Your task to perform on an android device: Go to CNN.com Image 0: 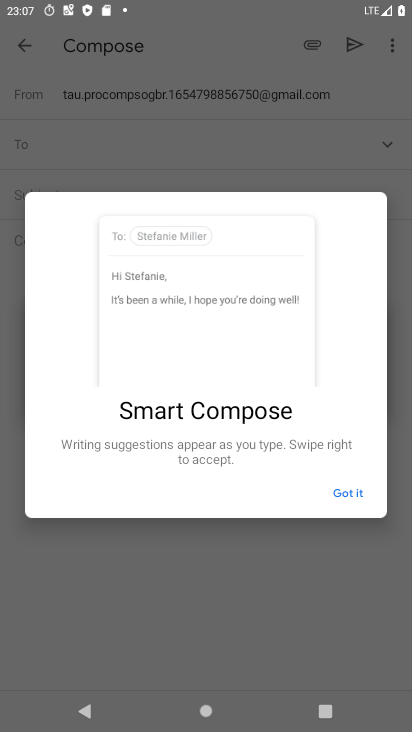
Step 0: press home button
Your task to perform on an android device: Go to CNN.com Image 1: 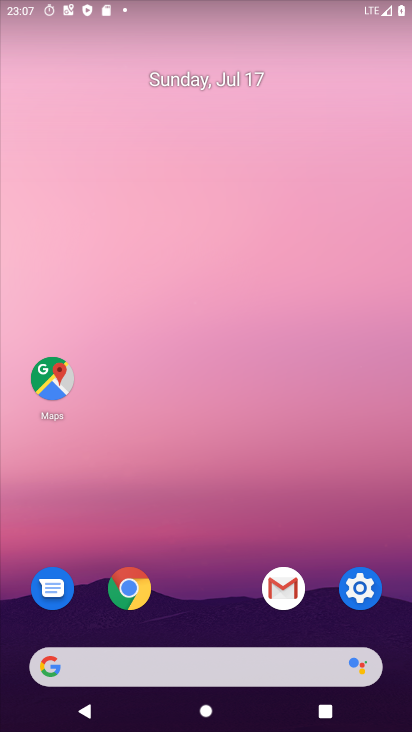
Step 1: click (116, 594)
Your task to perform on an android device: Go to CNN.com Image 2: 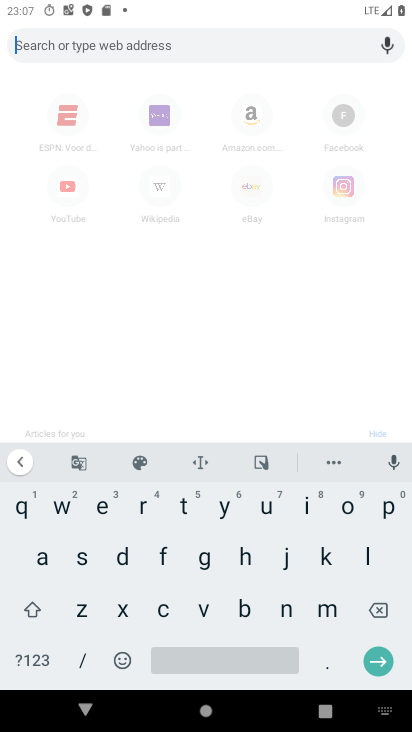
Step 2: click (161, 618)
Your task to perform on an android device: Go to CNN.com Image 3: 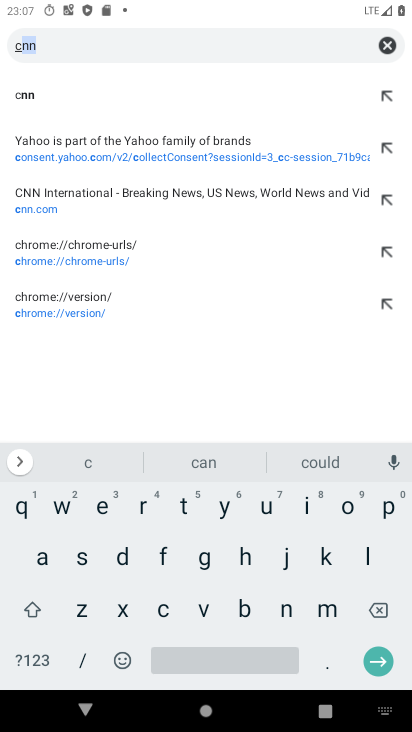
Step 3: click (30, 108)
Your task to perform on an android device: Go to CNN.com Image 4: 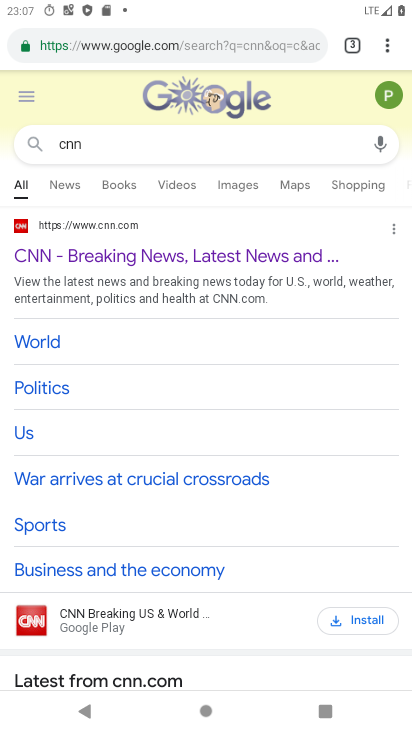
Step 4: click (42, 259)
Your task to perform on an android device: Go to CNN.com Image 5: 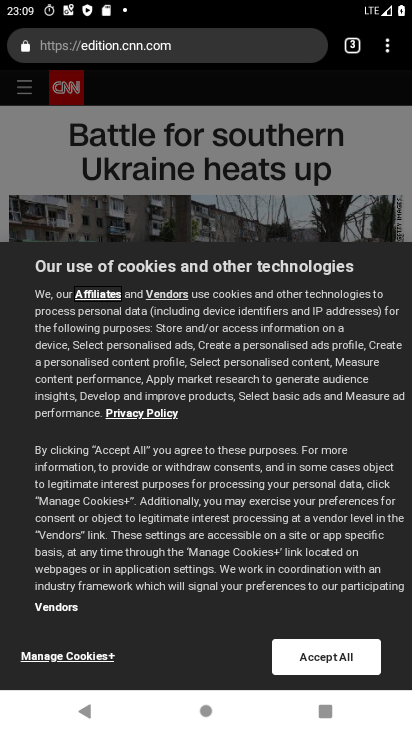
Step 5: task complete